Your task to perform on an android device: open chrome privacy settings Image 0: 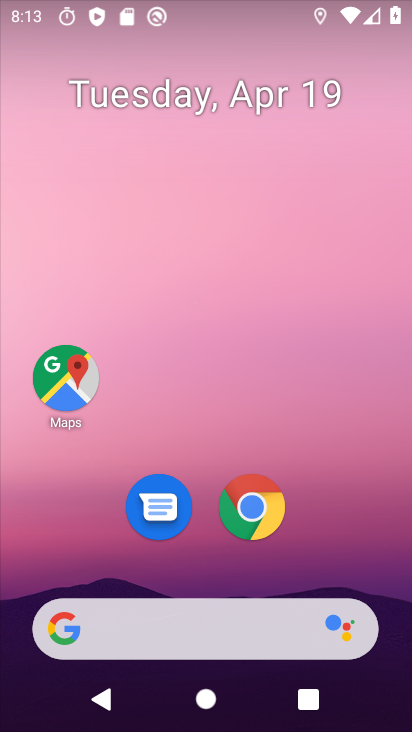
Step 0: click (255, 513)
Your task to perform on an android device: open chrome privacy settings Image 1: 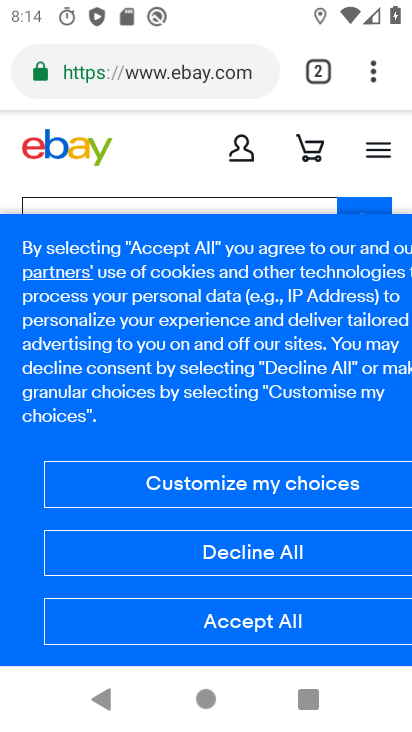
Step 1: click (376, 71)
Your task to perform on an android device: open chrome privacy settings Image 2: 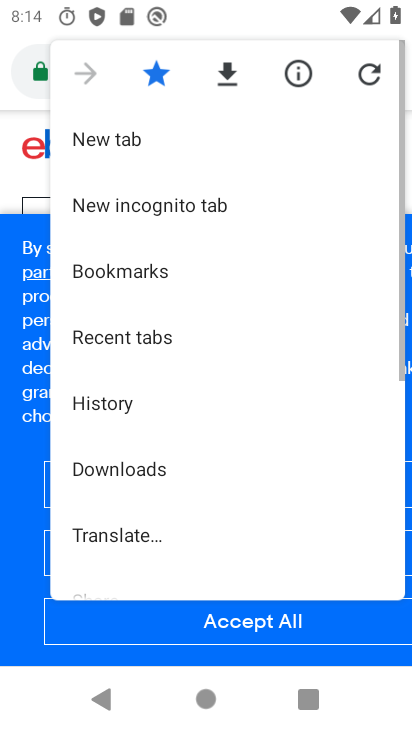
Step 2: drag from (147, 536) to (125, 234)
Your task to perform on an android device: open chrome privacy settings Image 3: 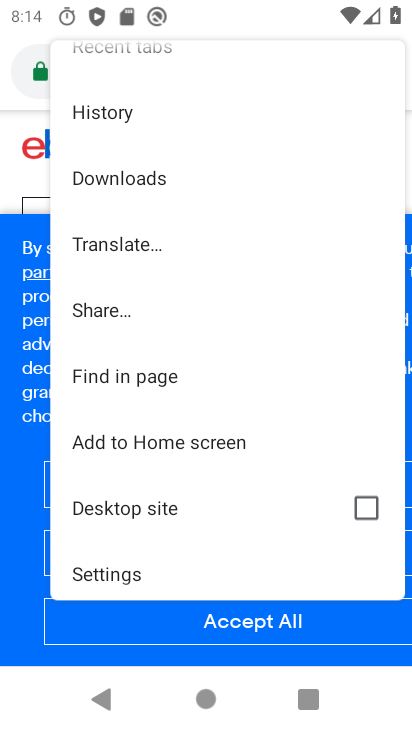
Step 3: click (124, 566)
Your task to perform on an android device: open chrome privacy settings Image 4: 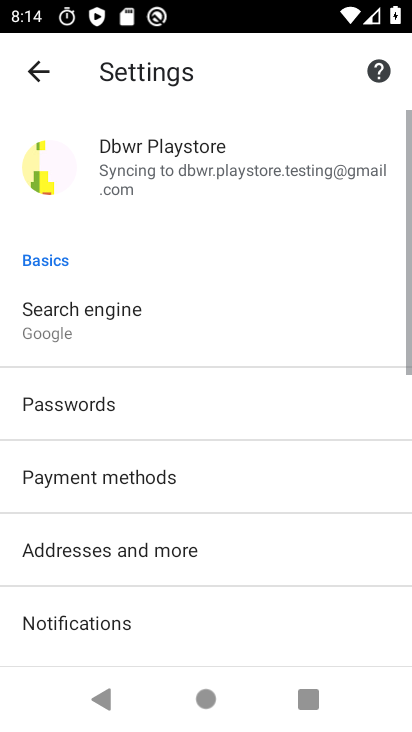
Step 4: drag from (121, 610) to (109, 374)
Your task to perform on an android device: open chrome privacy settings Image 5: 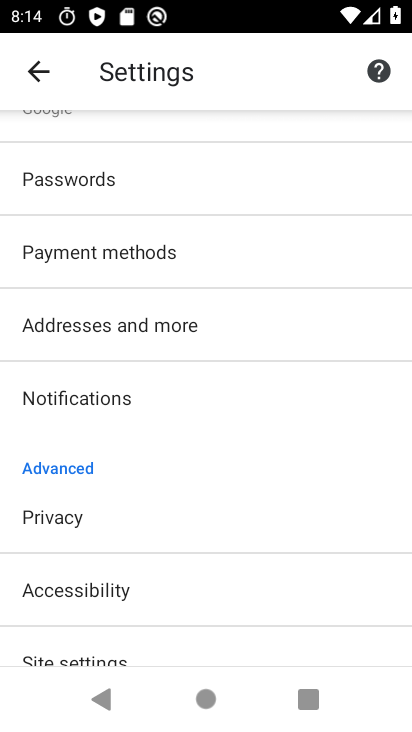
Step 5: click (51, 515)
Your task to perform on an android device: open chrome privacy settings Image 6: 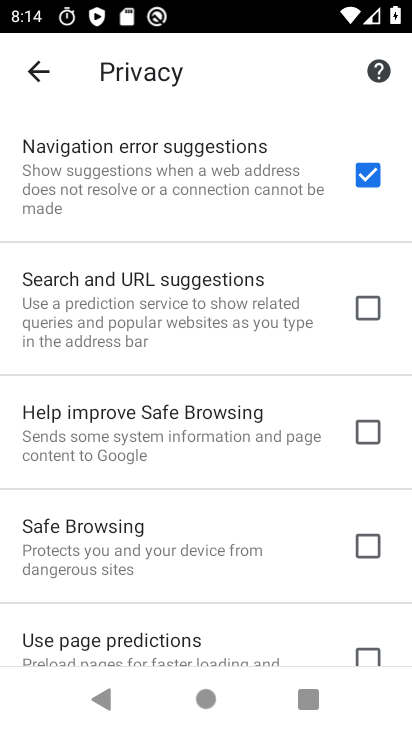
Step 6: task complete